Your task to perform on an android device: move a message to another label in the gmail app Image 0: 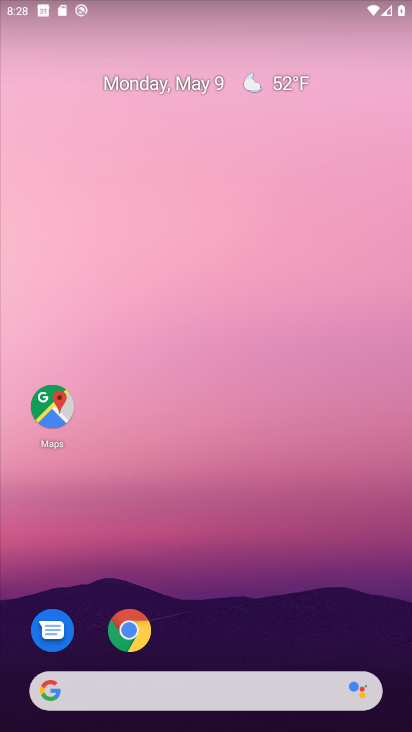
Step 0: drag from (220, 649) to (304, 19)
Your task to perform on an android device: move a message to another label in the gmail app Image 1: 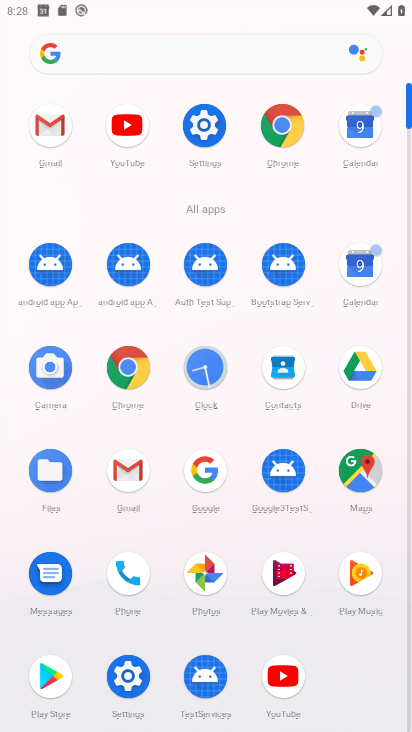
Step 1: click (133, 487)
Your task to perform on an android device: move a message to another label in the gmail app Image 2: 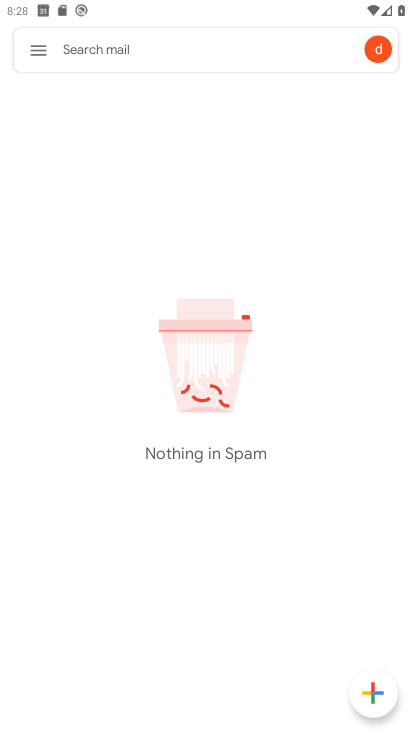
Step 2: click (37, 38)
Your task to perform on an android device: move a message to another label in the gmail app Image 3: 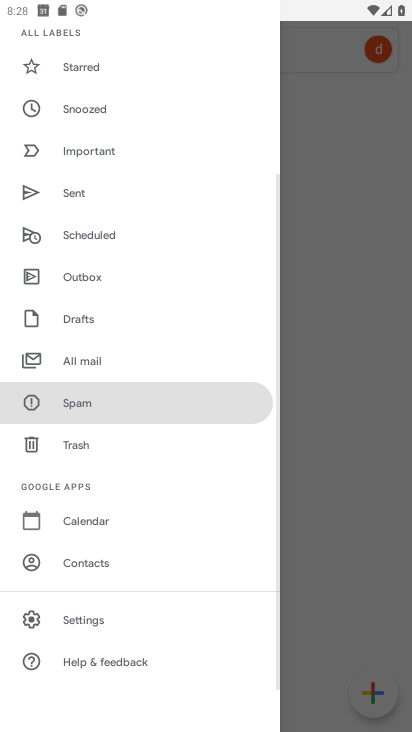
Step 3: click (81, 372)
Your task to perform on an android device: move a message to another label in the gmail app Image 4: 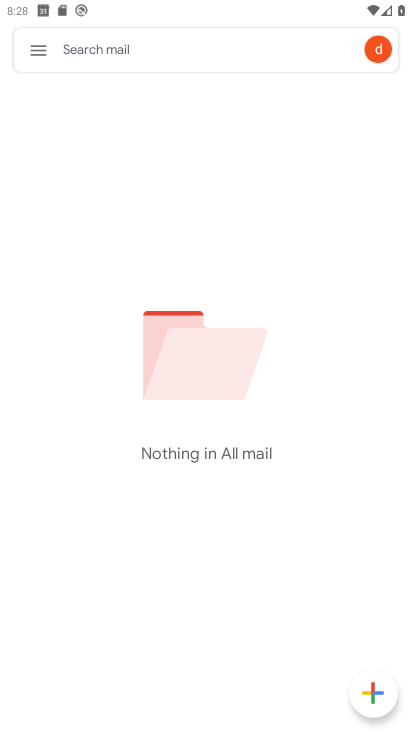
Step 4: task complete